Your task to perform on an android device: Look up the best rated pressure washer on Home Depot. Image 0: 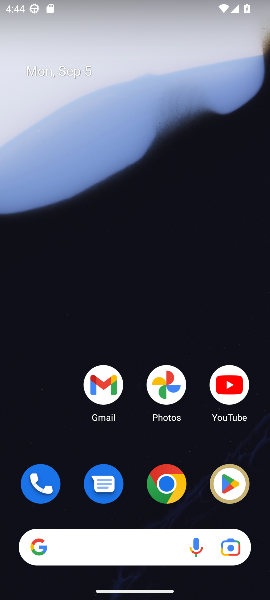
Step 0: click (172, 480)
Your task to perform on an android device: Look up the best rated pressure washer on Home Depot. Image 1: 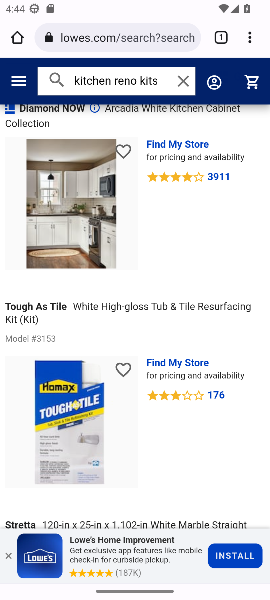
Step 1: click (171, 30)
Your task to perform on an android device: Look up the best rated pressure washer on Home Depot. Image 2: 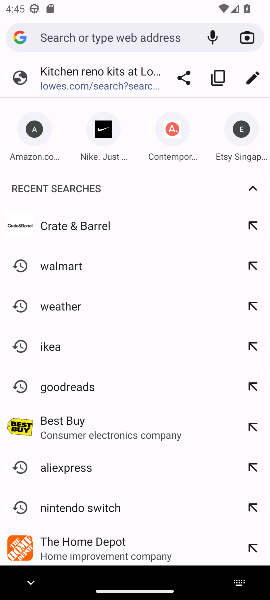
Step 2: type "Home Depot"
Your task to perform on an android device: Look up the best rated pressure washer on Home Depot. Image 3: 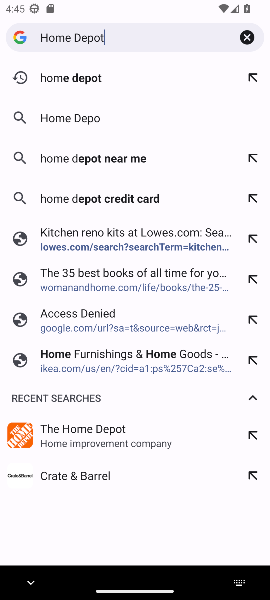
Step 3: press enter
Your task to perform on an android device: Look up the best rated pressure washer on Home Depot. Image 4: 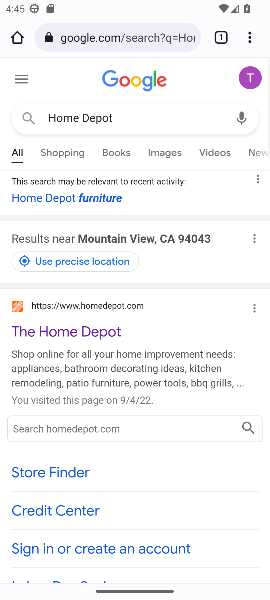
Step 4: click (95, 333)
Your task to perform on an android device: Look up the best rated pressure washer on Home Depot. Image 5: 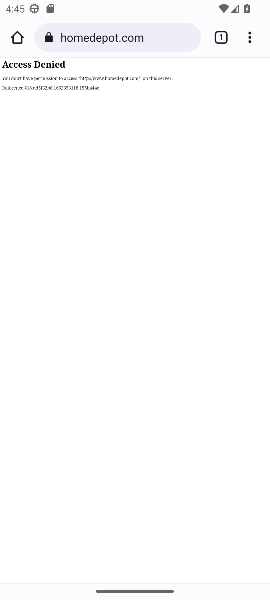
Step 5: task complete